Your task to perform on an android device: check data usage Image 0: 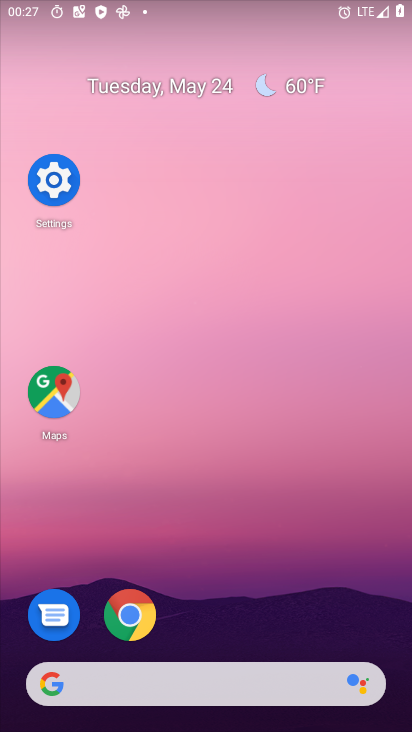
Step 0: click (62, 178)
Your task to perform on an android device: check data usage Image 1: 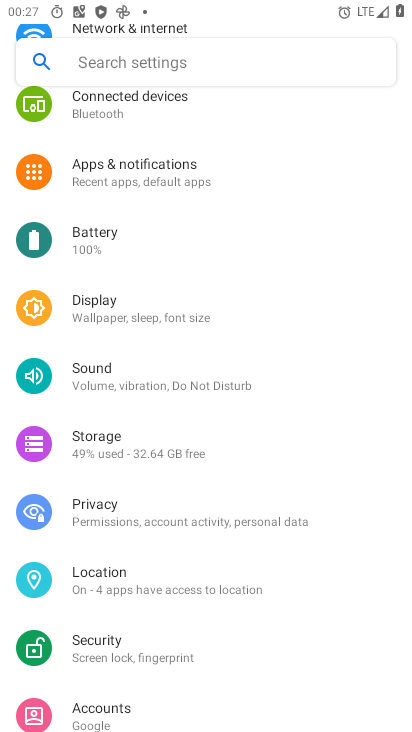
Step 1: drag from (138, 193) to (182, 570)
Your task to perform on an android device: check data usage Image 2: 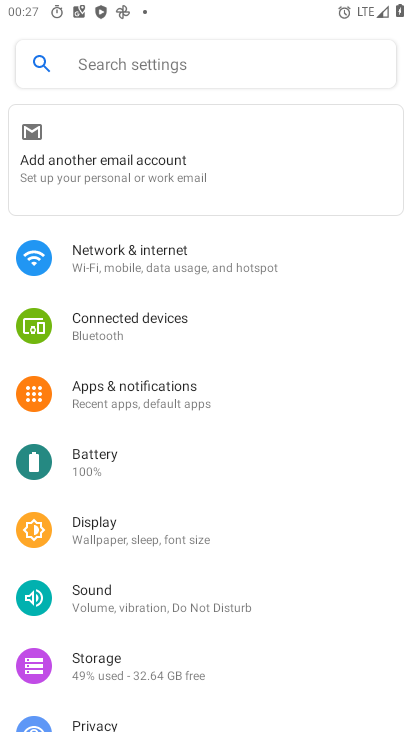
Step 2: drag from (147, 566) to (151, 325)
Your task to perform on an android device: check data usage Image 3: 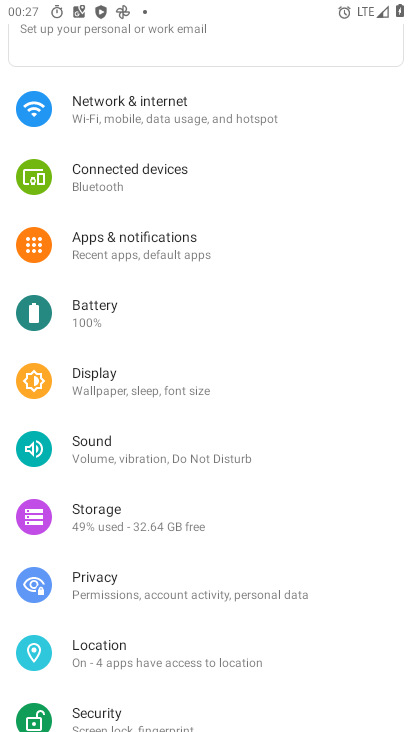
Step 3: click (111, 114)
Your task to perform on an android device: check data usage Image 4: 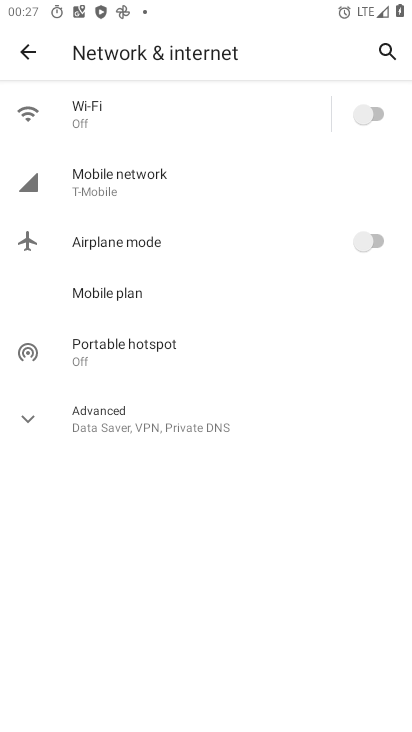
Step 4: click (94, 183)
Your task to perform on an android device: check data usage Image 5: 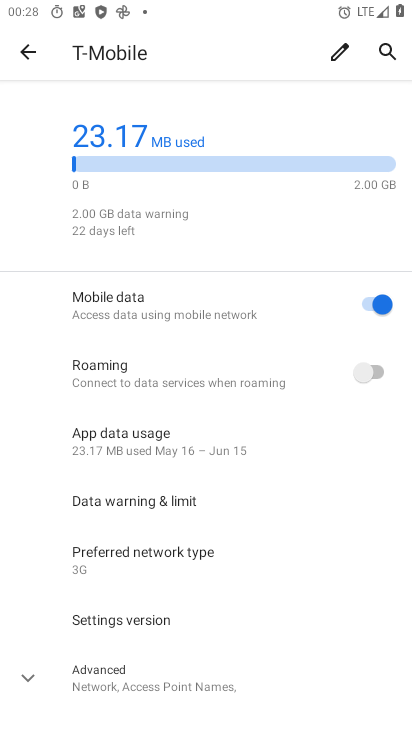
Step 5: task complete